Your task to perform on an android device: Show me the alarms in the clock app Image 0: 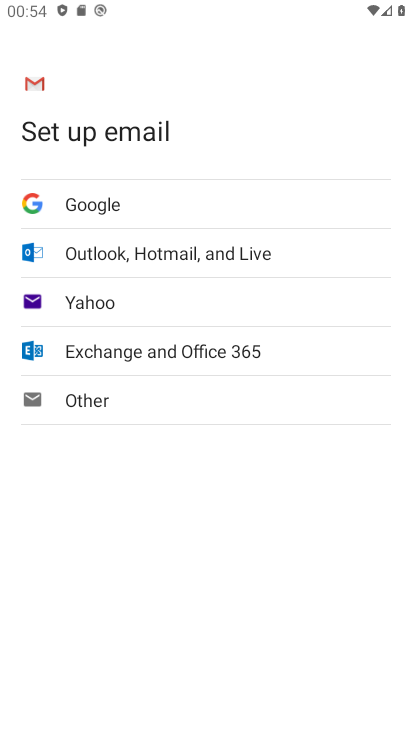
Step 0: press home button
Your task to perform on an android device: Show me the alarms in the clock app Image 1: 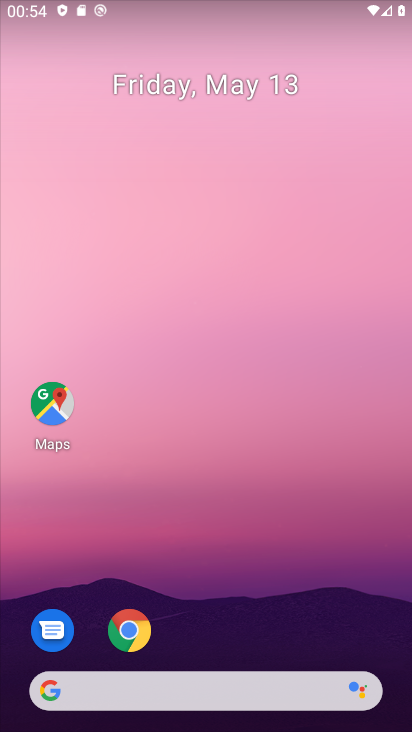
Step 1: drag from (262, 714) to (239, 311)
Your task to perform on an android device: Show me the alarms in the clock app Image 2: 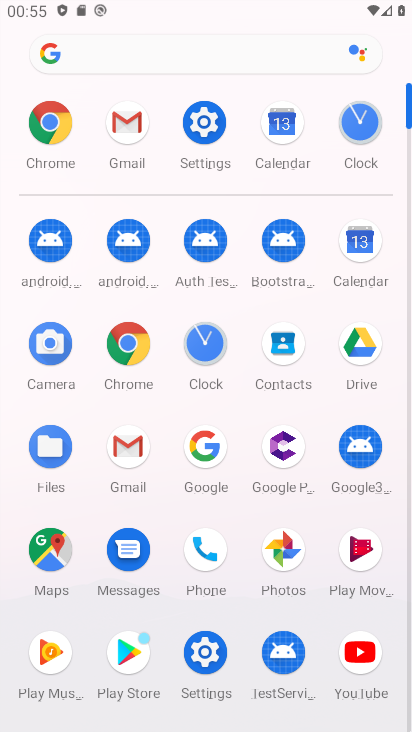
Step 2: click (208, 345)
Your task to perform on an android device: Show me the alarms in the clock app Image 3: 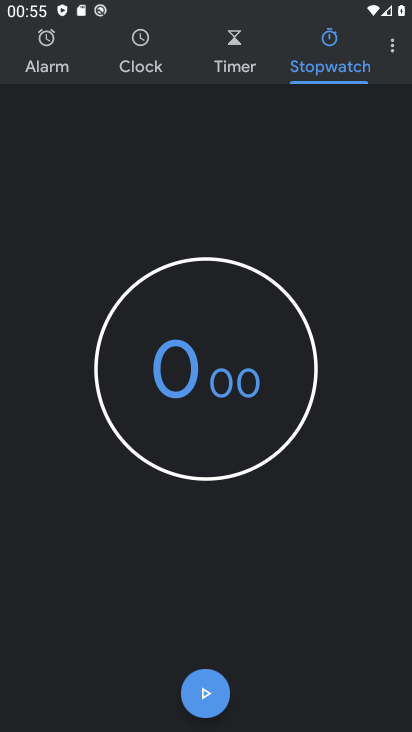
Step 3: click (47, 71)
Your task to perform on an android device: Show me the alarms in the clock app Image 4: 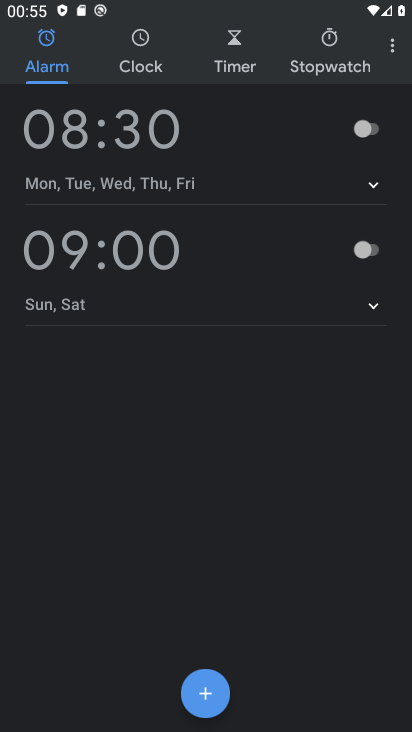
Step 4: click (76, 139)
Your task to perform on an android device: Show me the alarms in the clock app Image 5: 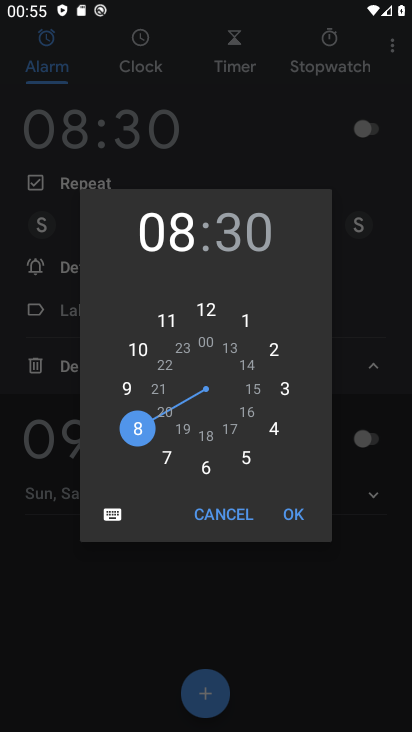
Step 5: task complete